Your task to perform on an android device: read, delete, or share a saved page in the chrome app Image 0: 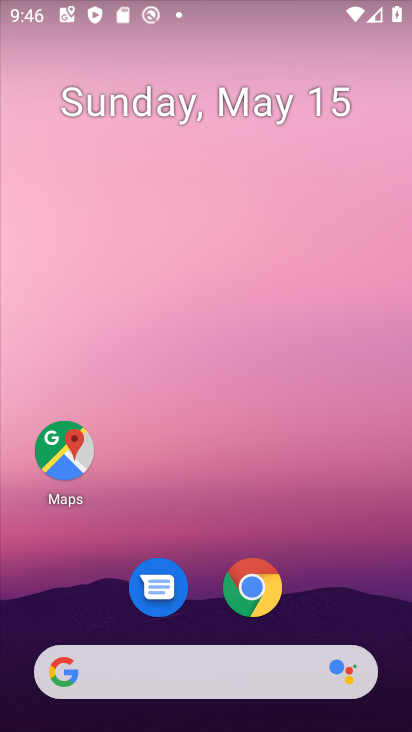
Step 0: drag from (390, 613) to (268, 62)
Your task to perform on an android device: read, delete, or share a saved page in the chrome app Image 1: 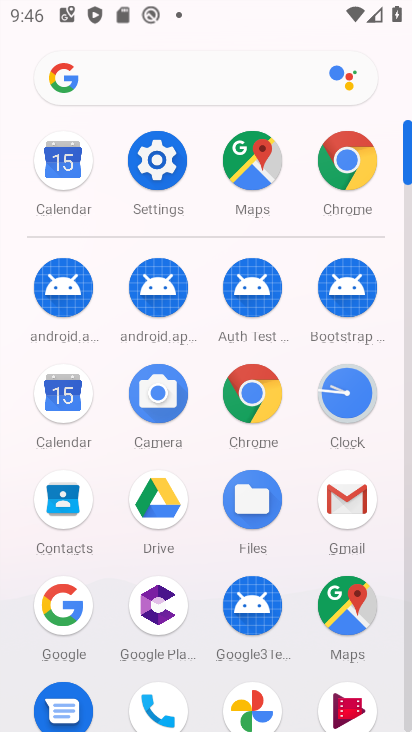
Step 1: click (262, 395)
Your task to perform on an android device: read, delete, or share a saved page in the chrome app Image 2: 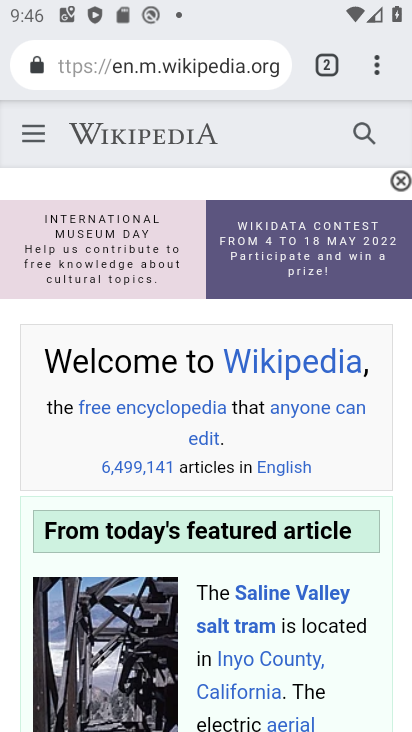
Step 2: task complete